Your task to perform on an android device: turn on javascript in the chrome app Image 0: 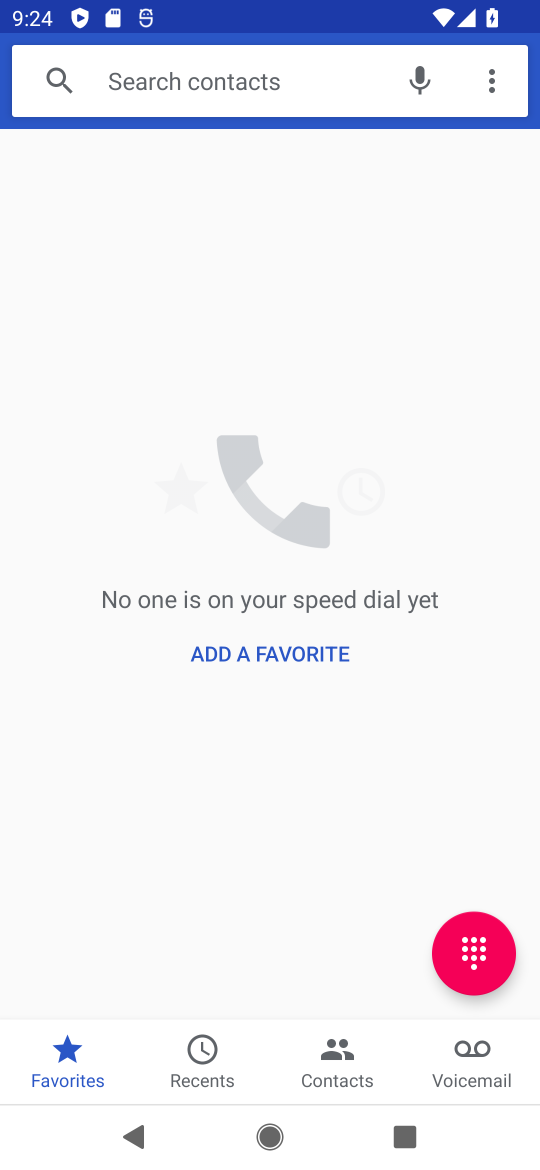
Step 0: press home button
Your task to perform on an android device: turn on javascript in the chrome app Image 1: 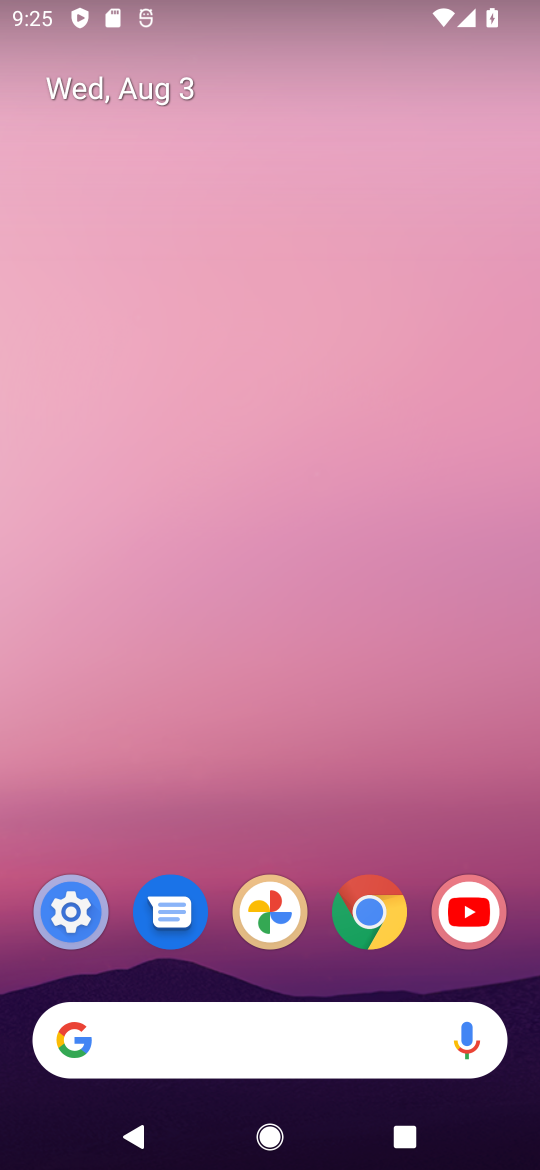
Step 1: drag from (452, 745) to (453, 25)
Your task to perform on an android device: turn on javascript in the chrome app Image 2: 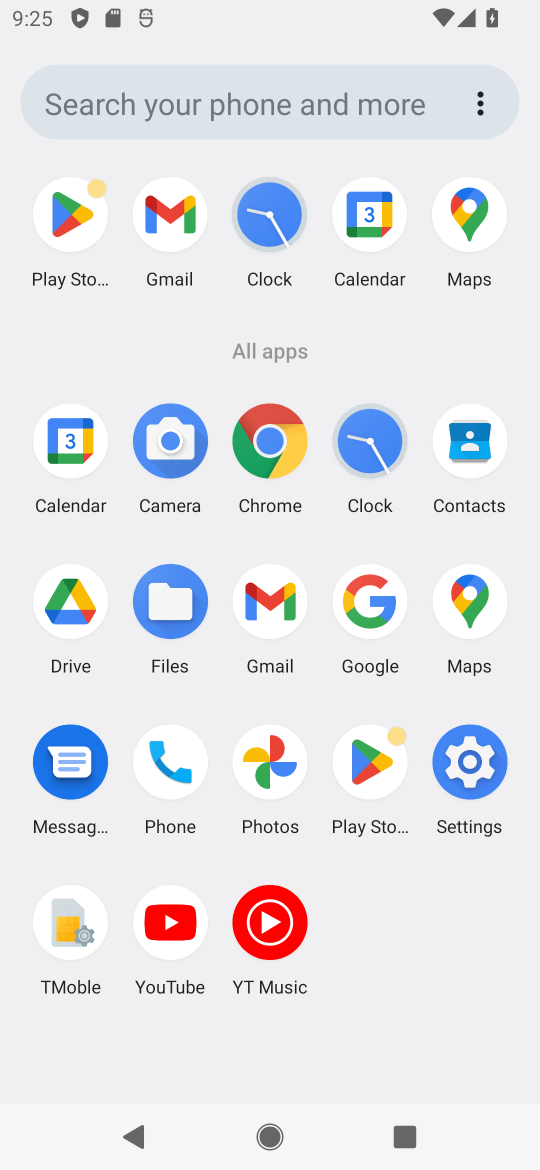
Step 2: click (290, 449)
Your task to perform on an android device: turn on javascript in the chrome app Image 3: 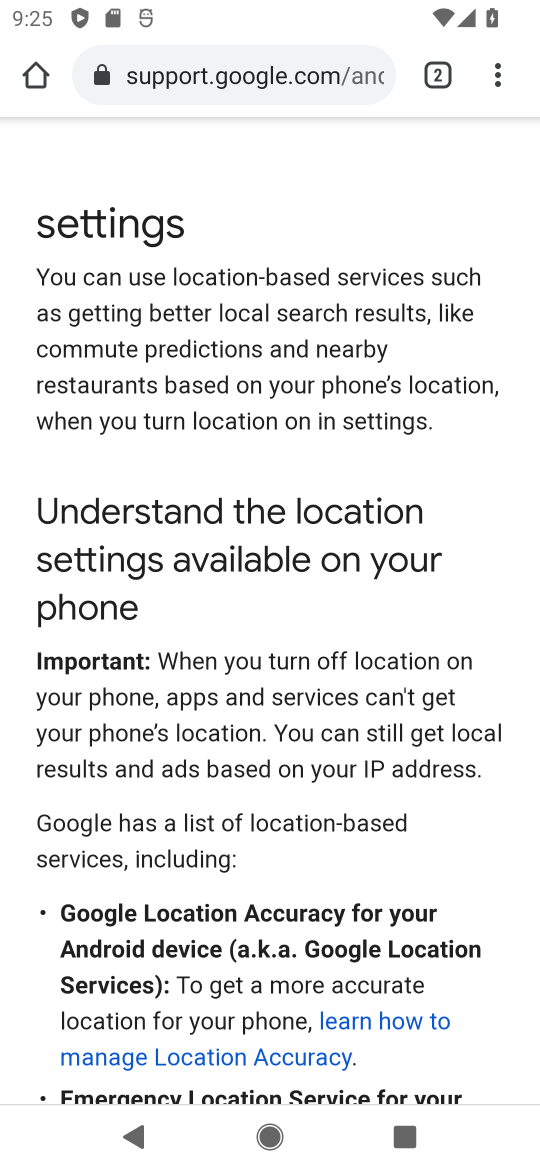
Step 3: drag from (326, 286) to (352, 845)
Your task to perform on an android device: turn on javascript in the chrome app Image 4: 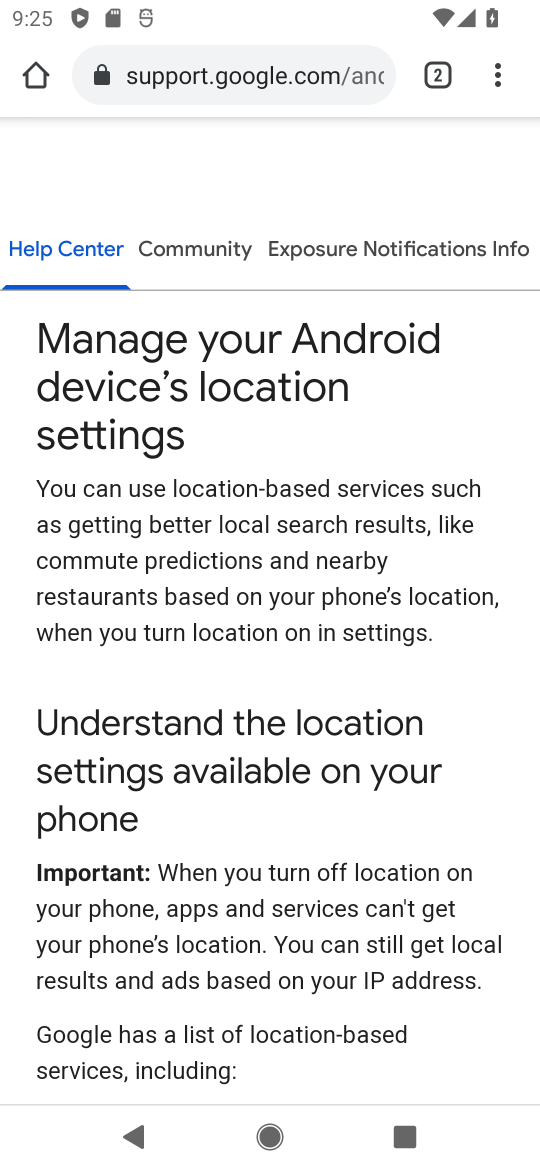
Step 4: drag from (493, 83) to (250, 986)
Your task to perform on an android device: turn on javascript in the chrome app Image 5: 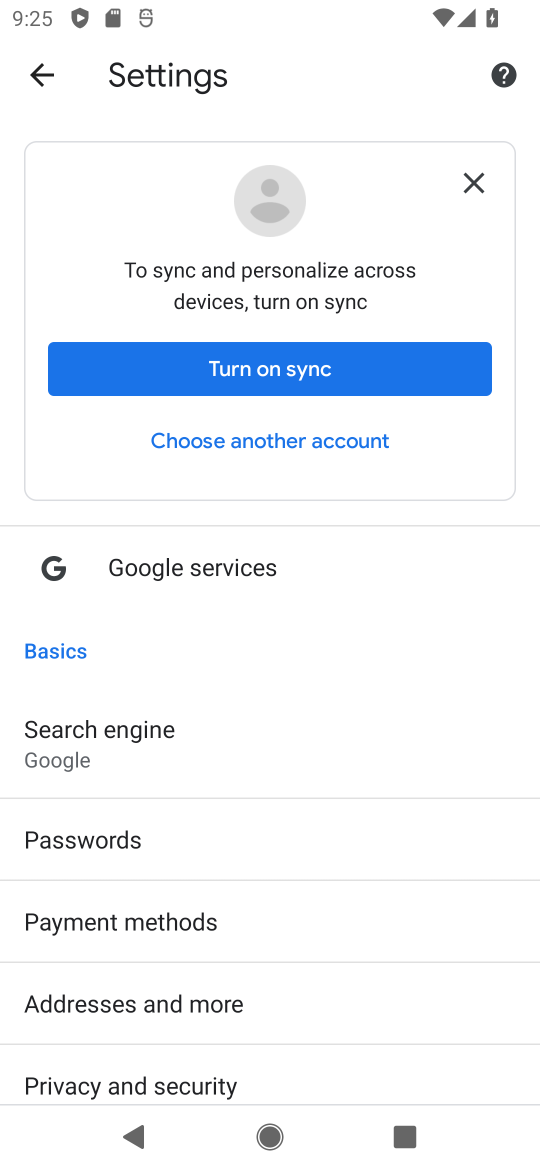
Step 5: drag from (258, 1026) to (241, 409)
Your task to perform on an android device: turn on javascript in the chrome app Image 6: 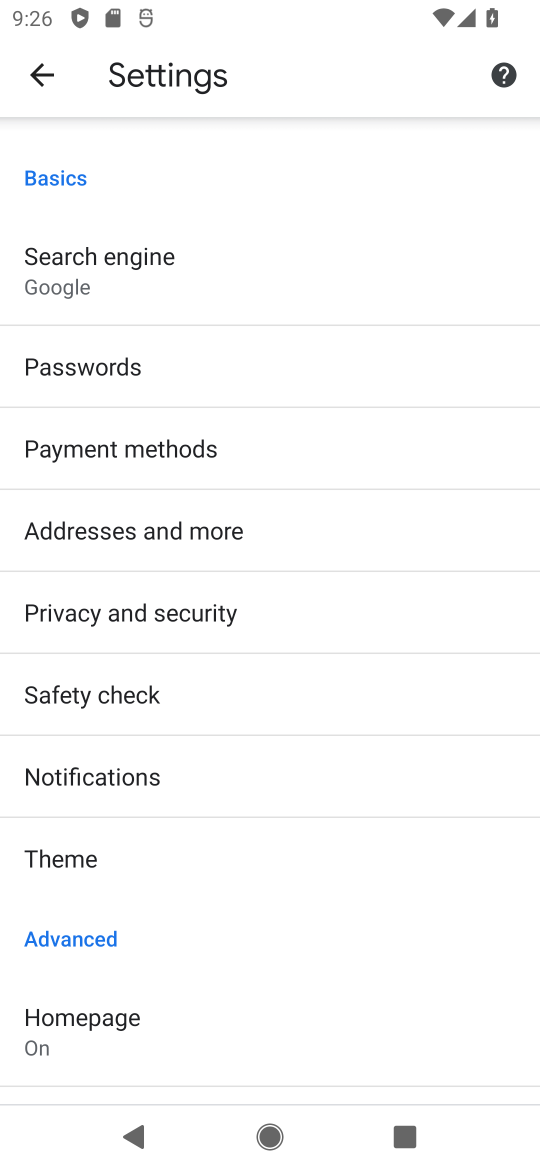
Step 6: drag from (239, 1021) to (276, 313)
Your task to perform on an android device: turn on javascript in the chrome app Image 7: 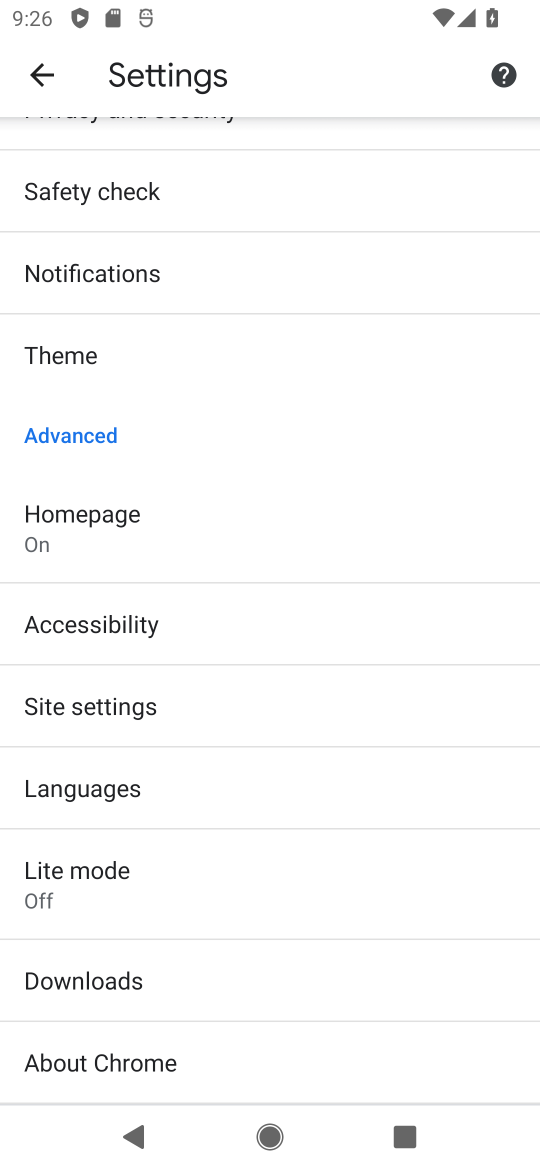
Step 7: click (110, 713)
Your task to perform on an android device: turn on javascript in the chrome app Image 8: 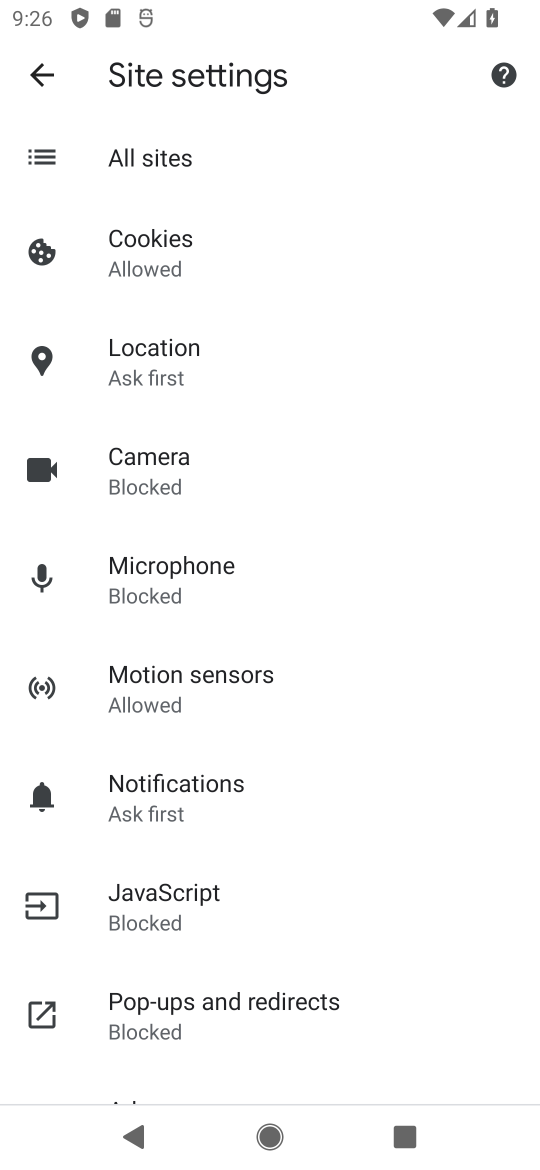
Step 8: click (150, 864)
Your task to perform on an android device: turn on javascript in the chrome app Image 9: 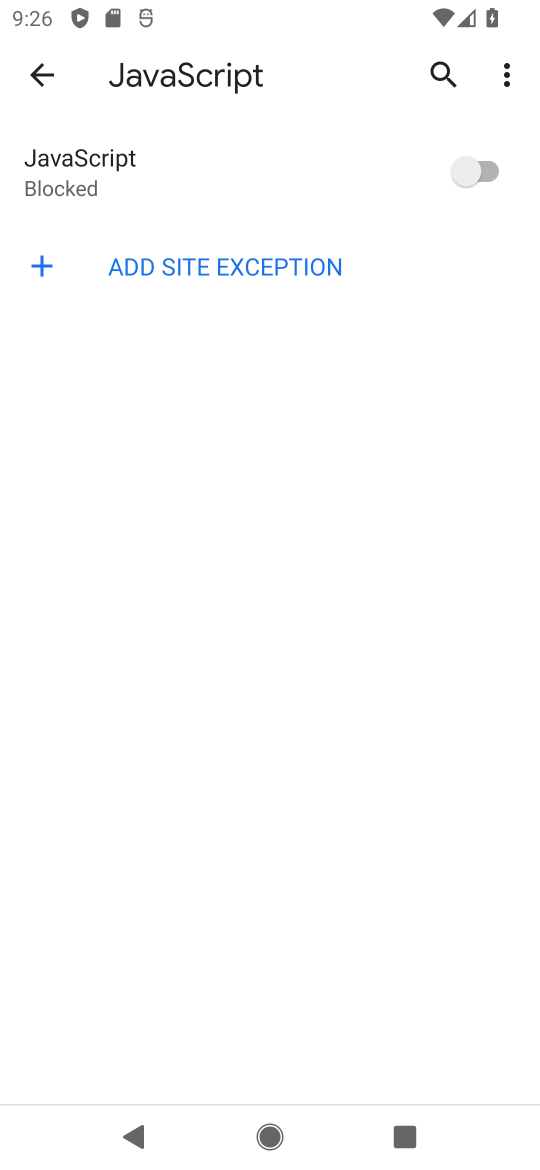
Step 9: click (464, 179)
Your task to perform on an android device: turn on javascript in the chrome app Image 10: 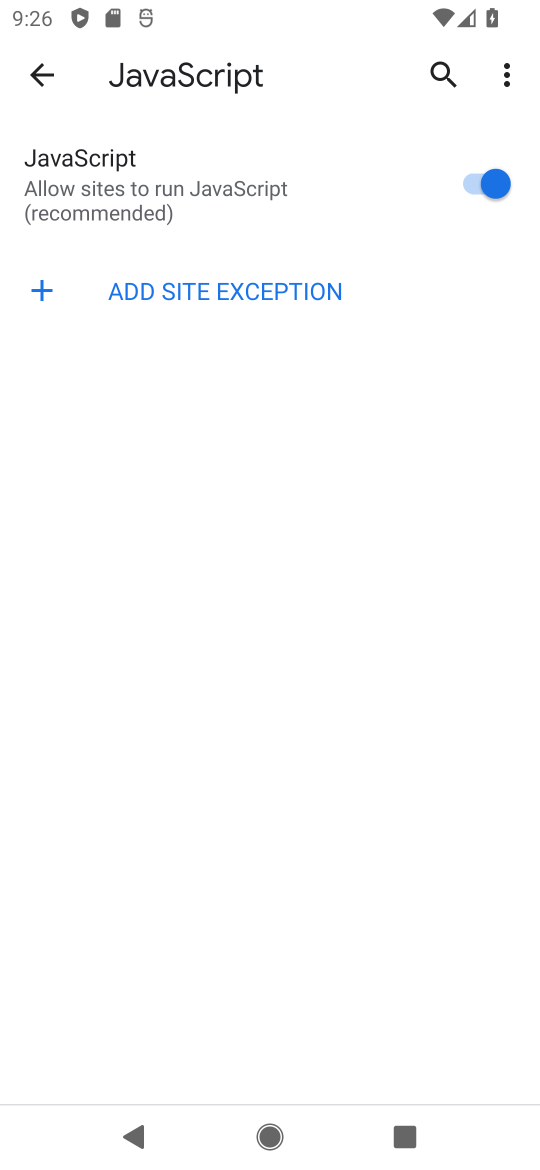
Step 10: task complete